Your task to perform on an android device: empty trash in google photos Image 0: 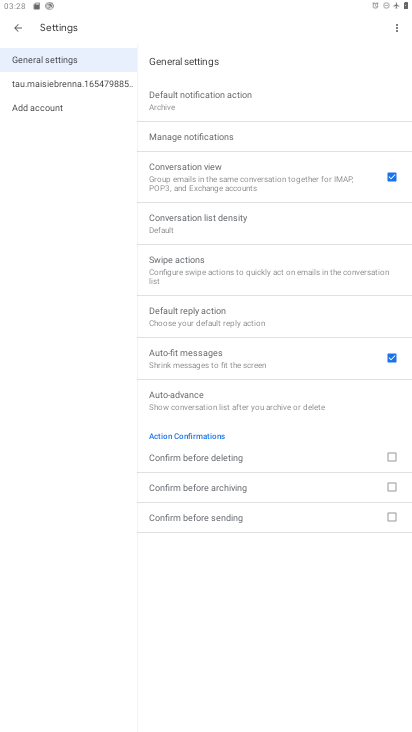
Step 0: press home button
Your task to perform on an android device: empty trash in google photos Image 1: 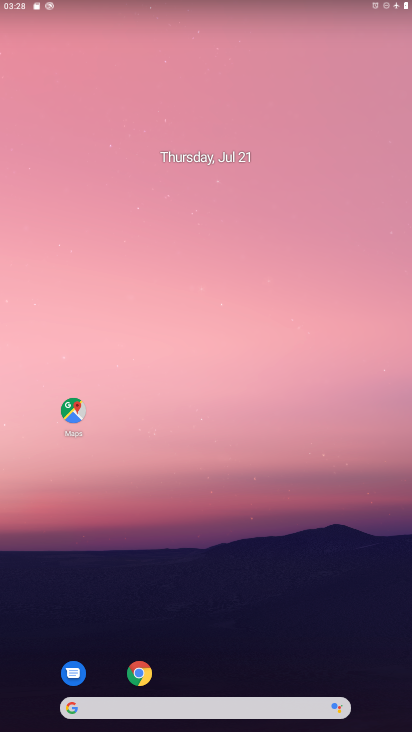
Step 1: drag from (208, 663) to (219, 275)
Your task to perform on an android device: empty trash in google photos Image 2: 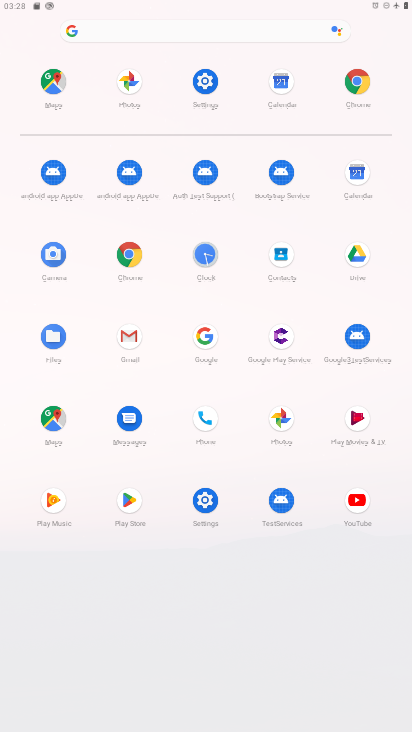
Step 2: click (276, 413)
Your task to perform on an android device: empty trash in google photos Image 3: 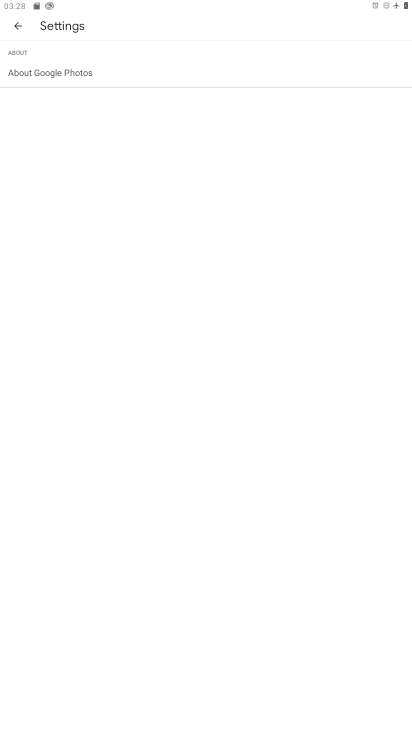
Step 3: click (18, 27)
Your task to perform on an android device: empty trash in google photos Image 4: 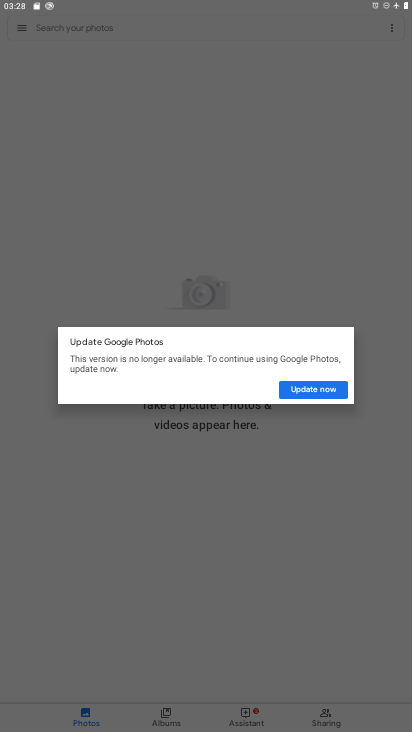
Step 4: click (295, 493)
Your task to perform on an android device: empty trash in google photos Image 5: 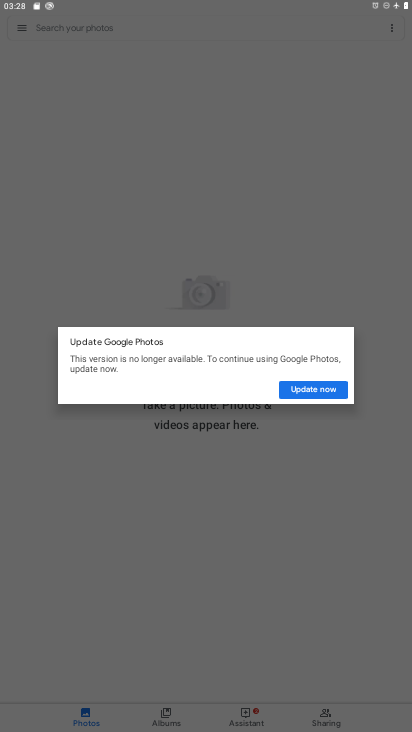
Step 5: click (291, 391)
Your task to perform on an android device: empty trash in google photos Image 6: 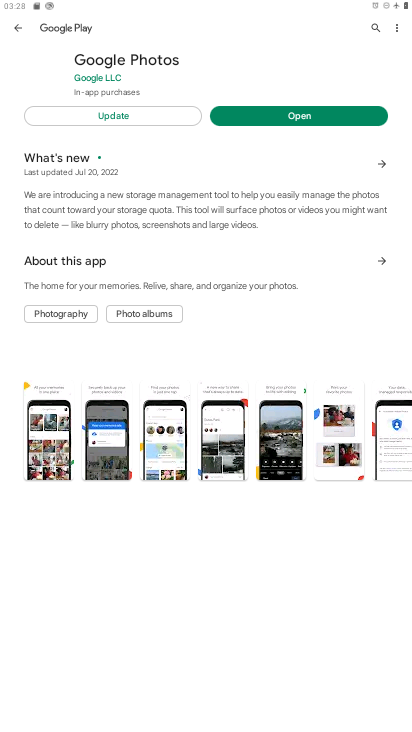
Step 6: press back button
Your task to perform on an android device: empty trash in google photos Image 7: 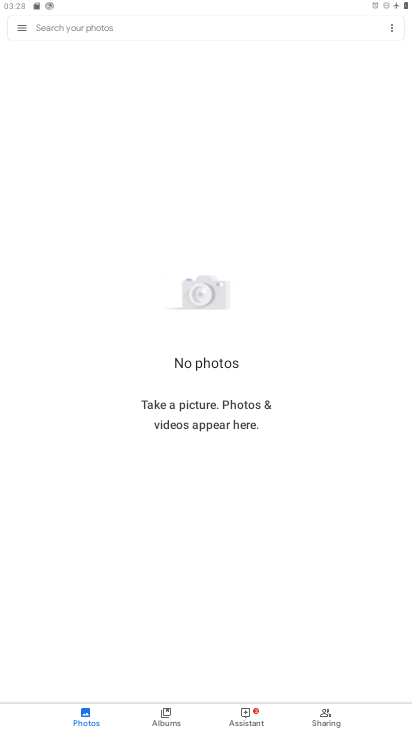
Step 7: click (21, 31)
Your task to perform on an android device: empty trash in google photos Image 8: 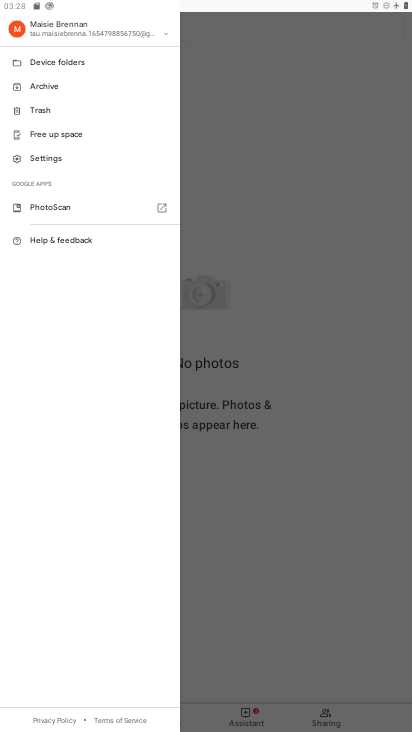
Step 8: click (49, 103)
Your task to perform on an android device: empty trash in google photos Image 9: 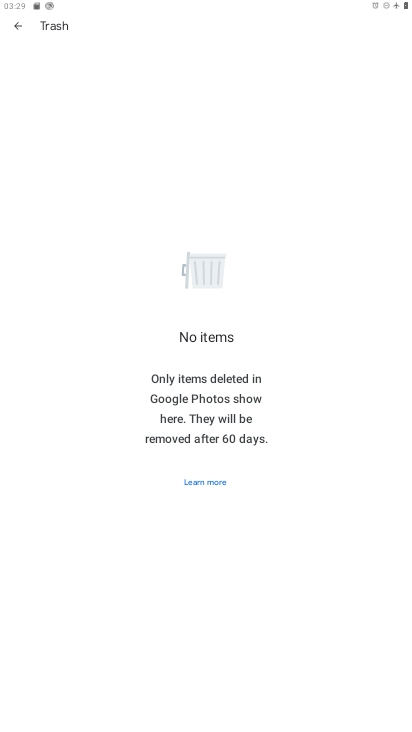
Step 9: task complete